Your task to perform on an android device: Go to Yahoo.com Image 0: 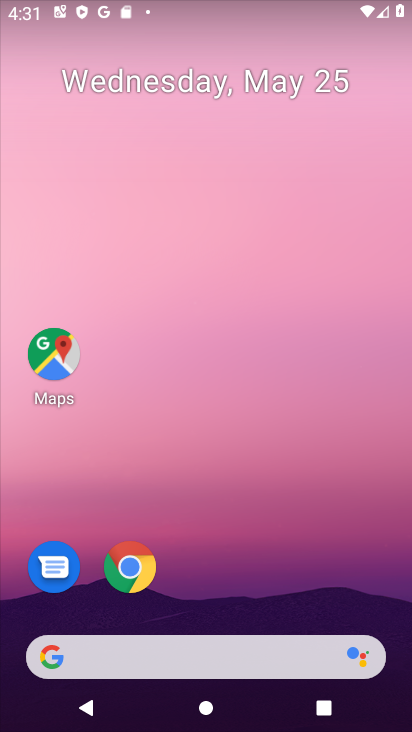
Step 0: drag from (275, 568) to (225, 18)
Your task to perform on an android device: Go to Yahoo.com Image 1: 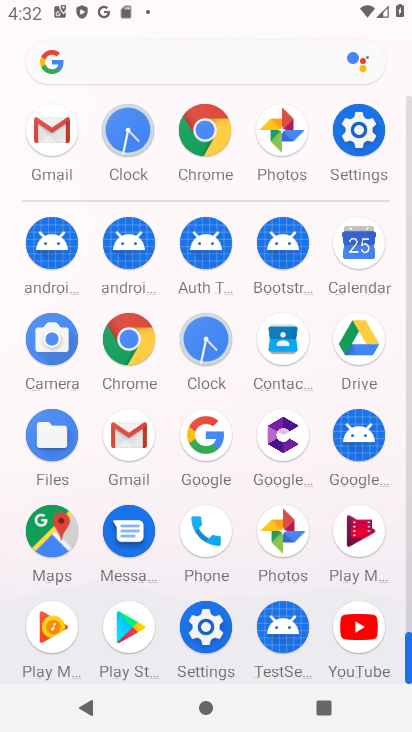
Step 1: drag from (0, 523) to (14, 214)
Your task to perform on an android device: Go to Yahoo.com Image 2: 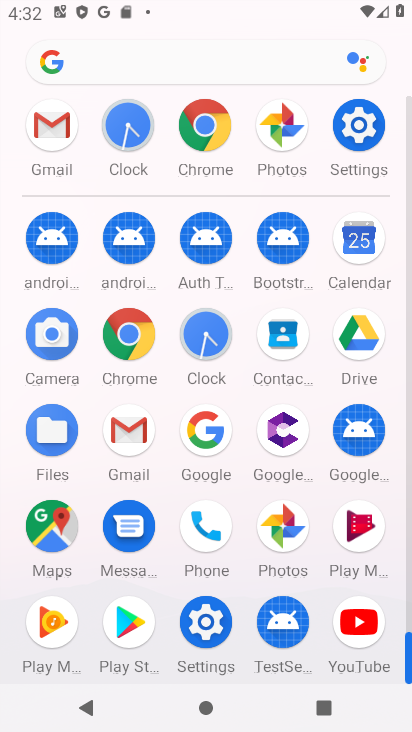
Step 2: click (209, 124)
Your task to perform on an android device: Go to Yahoo.com Image 3: 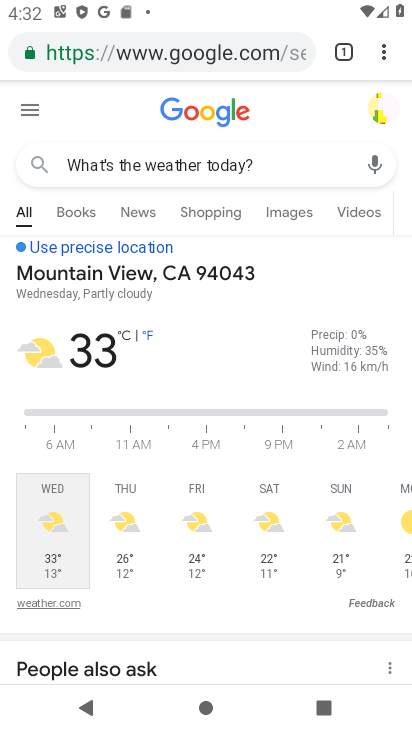
Step 3: click (226, 48)
Your task to perform on an android device: Go to Yahoo.com Image 4: 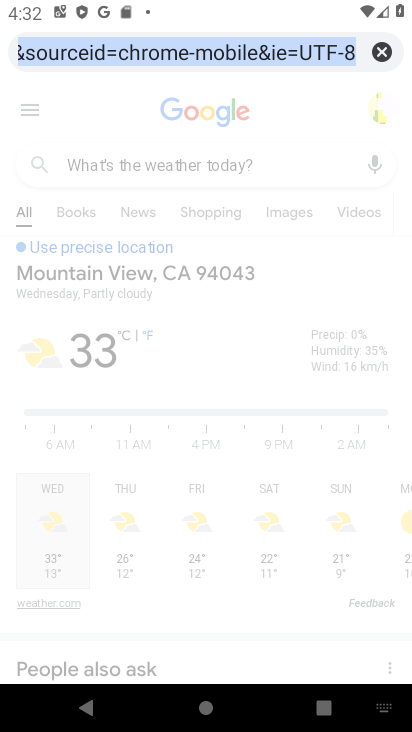
Step 4: click (384, 50)
Your task to perform on an android device: Go to Yahoo.com Image 5: 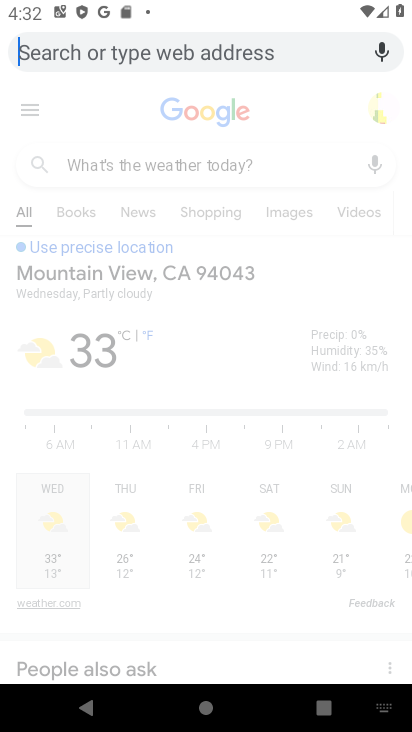
Step 5: type " Yahoo.com"
Your task to perform on an android device: Go to Yahoo.com Image 6: 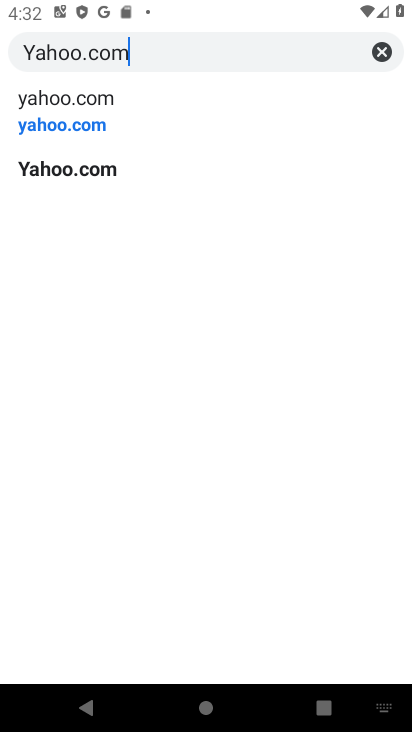
Step 6: type ""
Your task to perform on an android device: Go to Yahoo.com Image 7: 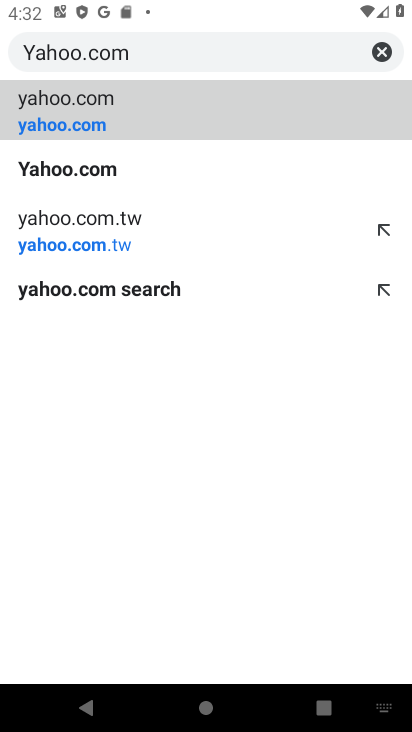
Step 7: click (116, 106)
Your task to perform on an android device: Go to Yahoo.com Image 8: 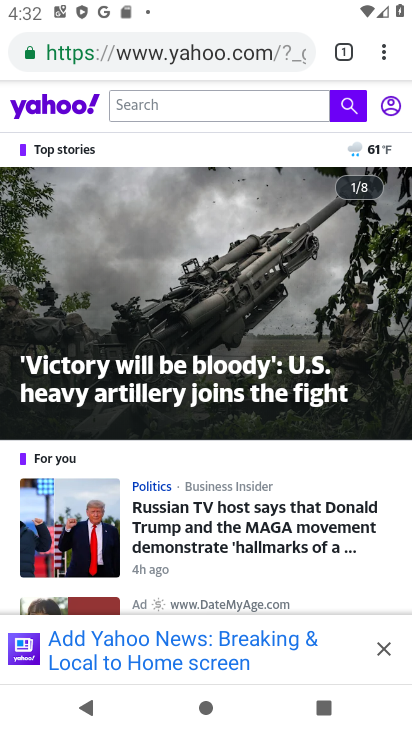
Step 8: task complete